Your task to perform on an android device: turn smart compose on in the gmail app Image 0: 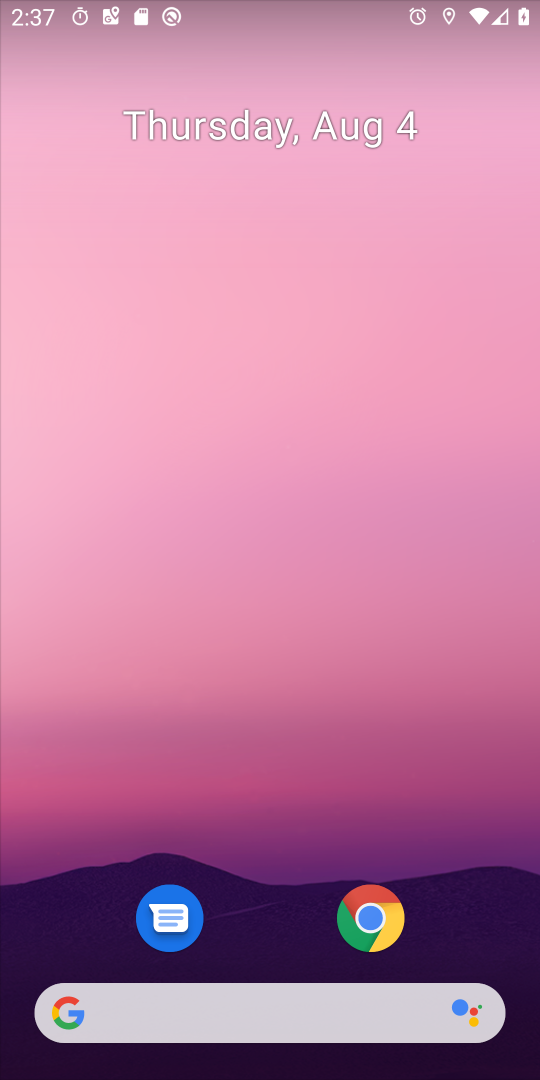
Step 0: drag from (259, 965) to (242, 385)
Your task to perform on an android device: turn smart compose on in the gmail app Image 1: 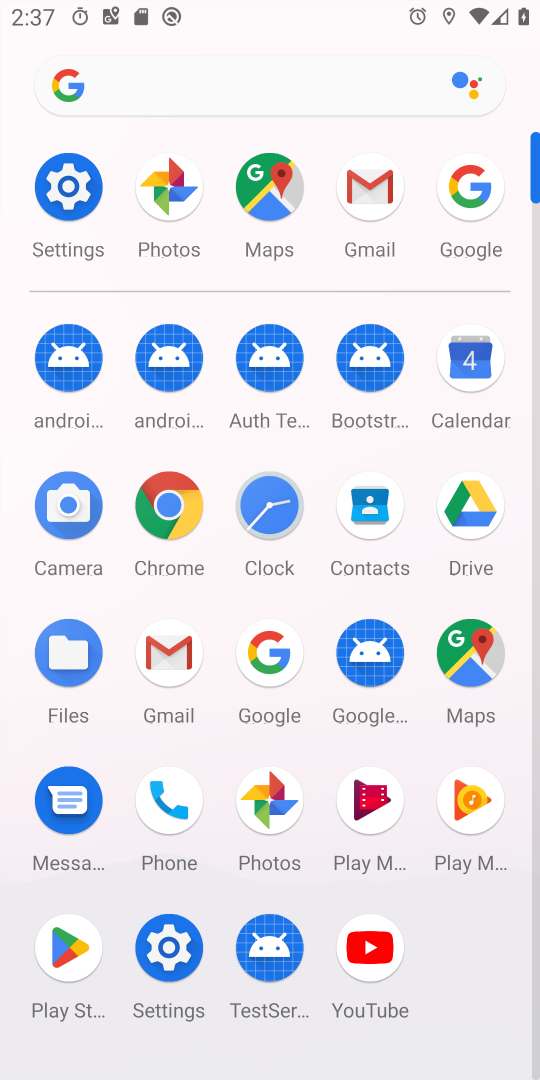
Step 1: click (381, 180)
Your task to perform on an android device: turn smart compose on in the gmail app Image 2: 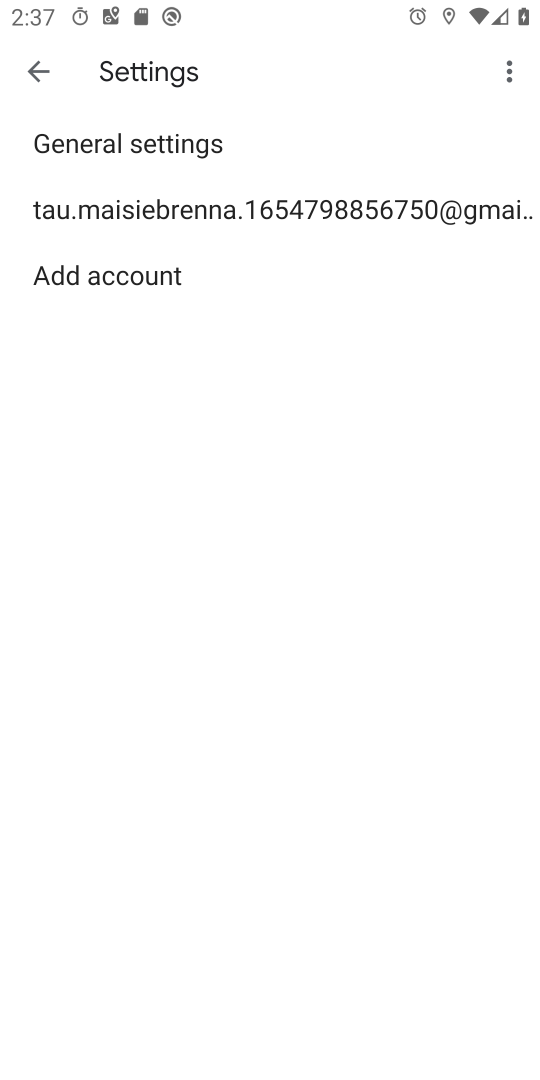
Step 2: click (46, 227)
Your task to perform on an android device: turn smart compose on in the gmail app Image 3: 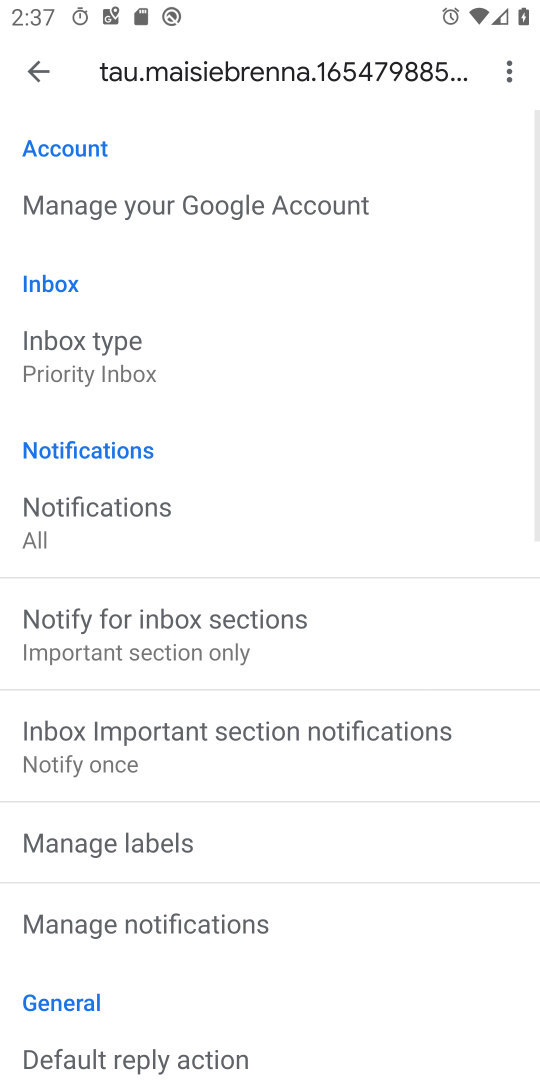
Step 3: task complete